Your task to perform on an android device: toggle priority inbox in the gmail app Image 0: 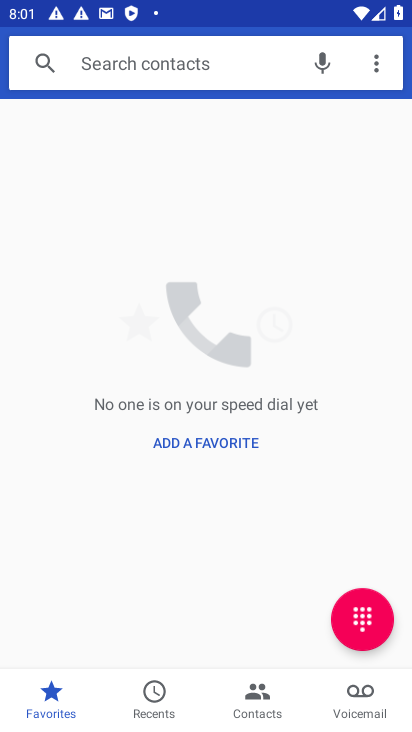
Step 0: press home button
Your task to perform on an android device: toggle priority inbox in the gmail app Image 1: 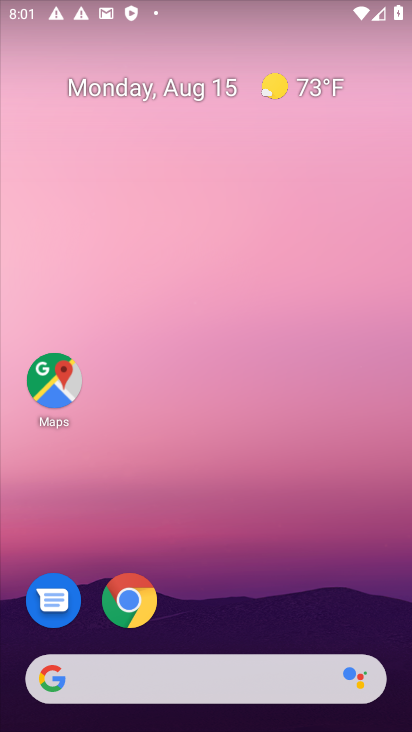
Step 1: drag from (199, 644) to (180, 50)
Your task to perform on an android device: toggle priority inbox in the gmail app Image 2: 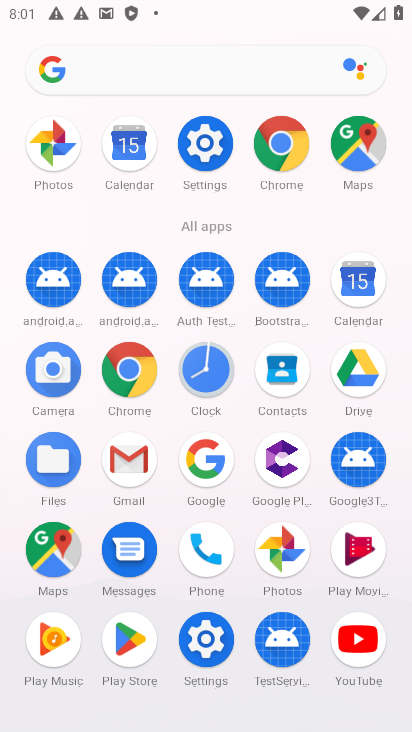
Step 2: click (131, 459)
Your task to perform on an android device: toggle priority inbox in the gmail app Image 3: 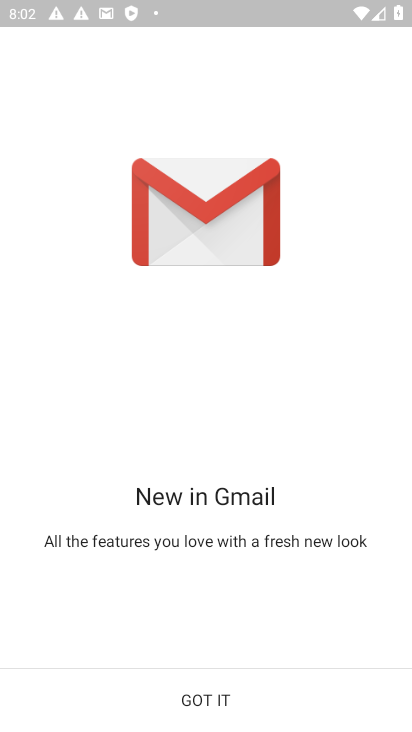
Step 3: click (200, 693)
Your task to perform on an android device: toggle priority inbox in the gmail app Image 4: 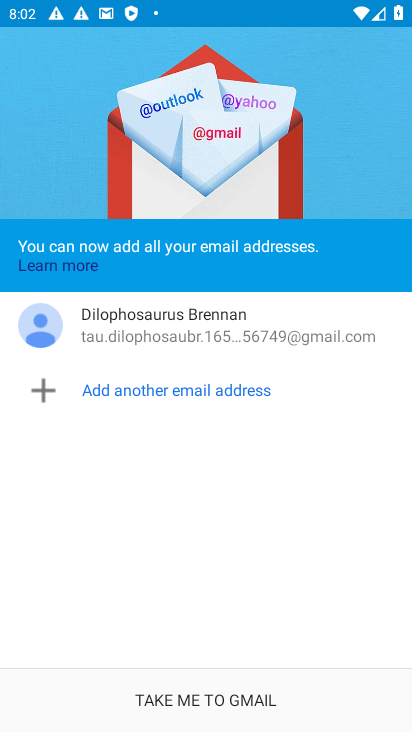
Step 4: click (193, 696)
Your task to perform on an android device: toggle priority inbox in the gmail app Image 5: 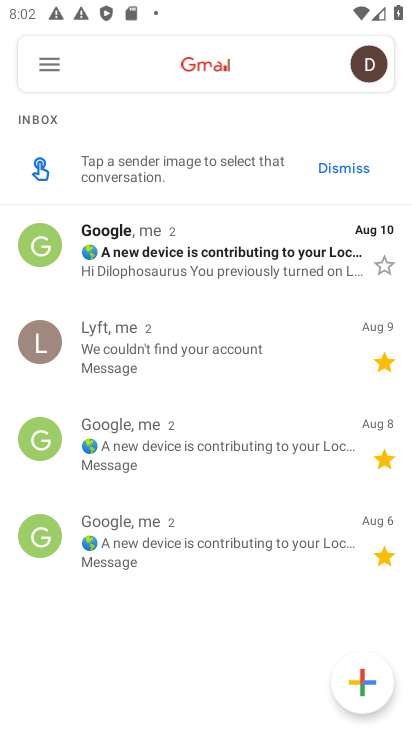
Step 5: click (46, 63)
Your task to perform on an android device: toggle priority inbox in the gmail app Image 6: 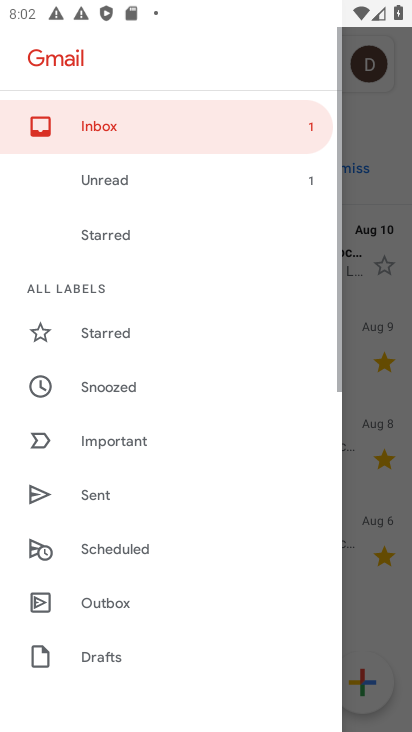
Step 6: drag from (114, 625) to (121, 199)
Your task to perform on an android device: toggle priority inbox in the gmail app Image 7: 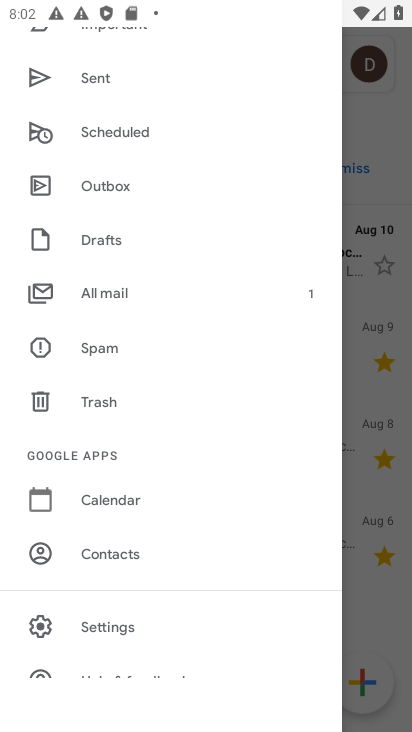
Step 7: click (101, 623)
Your task to perform on an android device: toggle priority inbox in the gmail app Image 8: 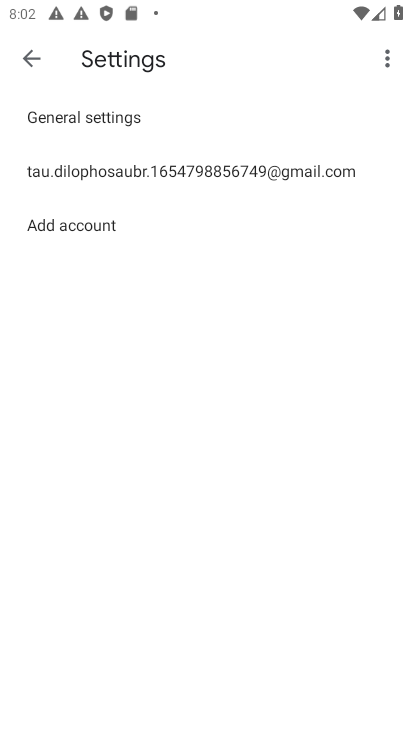
Step 8: click (95, 165)
Your task to perform on an android device: toggle priority inbox in the gmail app Image 9: 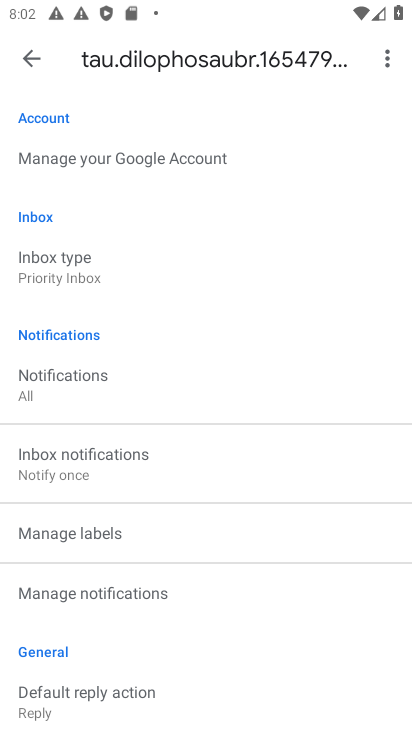
Step 9: click (60, 261)
Your task to perform on an android device: toggle priority inbox in the gmail app Image 10: 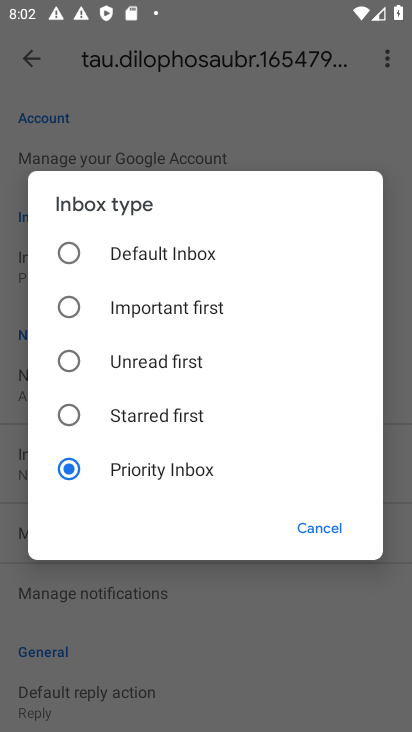
Step 10: click (71, 258)
Your task to perform on an android device: toggle priority inbox in the gmail app Image 11: 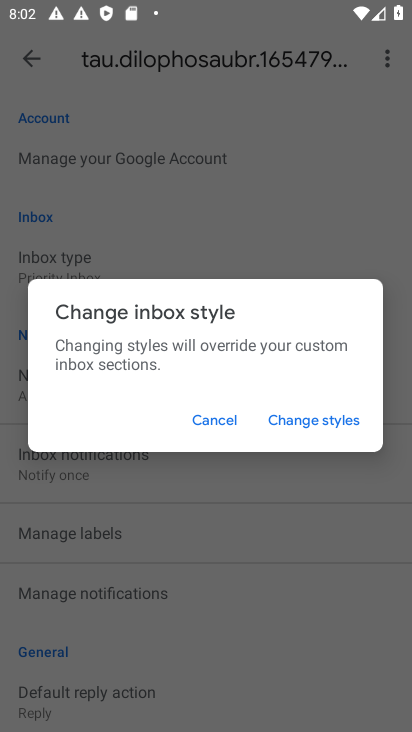
Step 11: click (298, 421)
Your task to perform on an android device: toggle priority inbox in the gmail app Image 12: 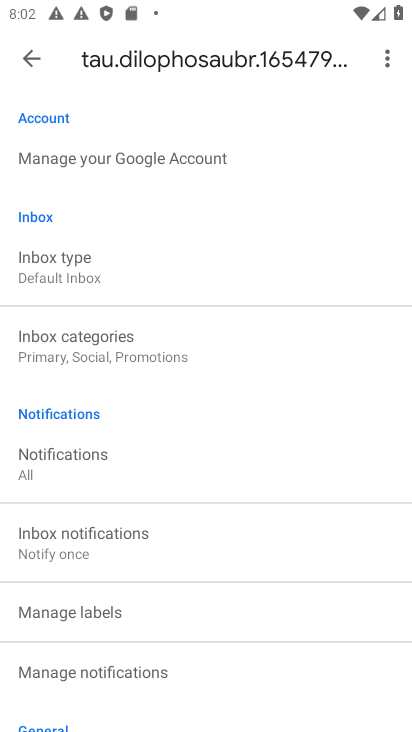
Step 12: task complete